Your task to perform on an android device: Search for pizza restaurants on Maps Image 0: 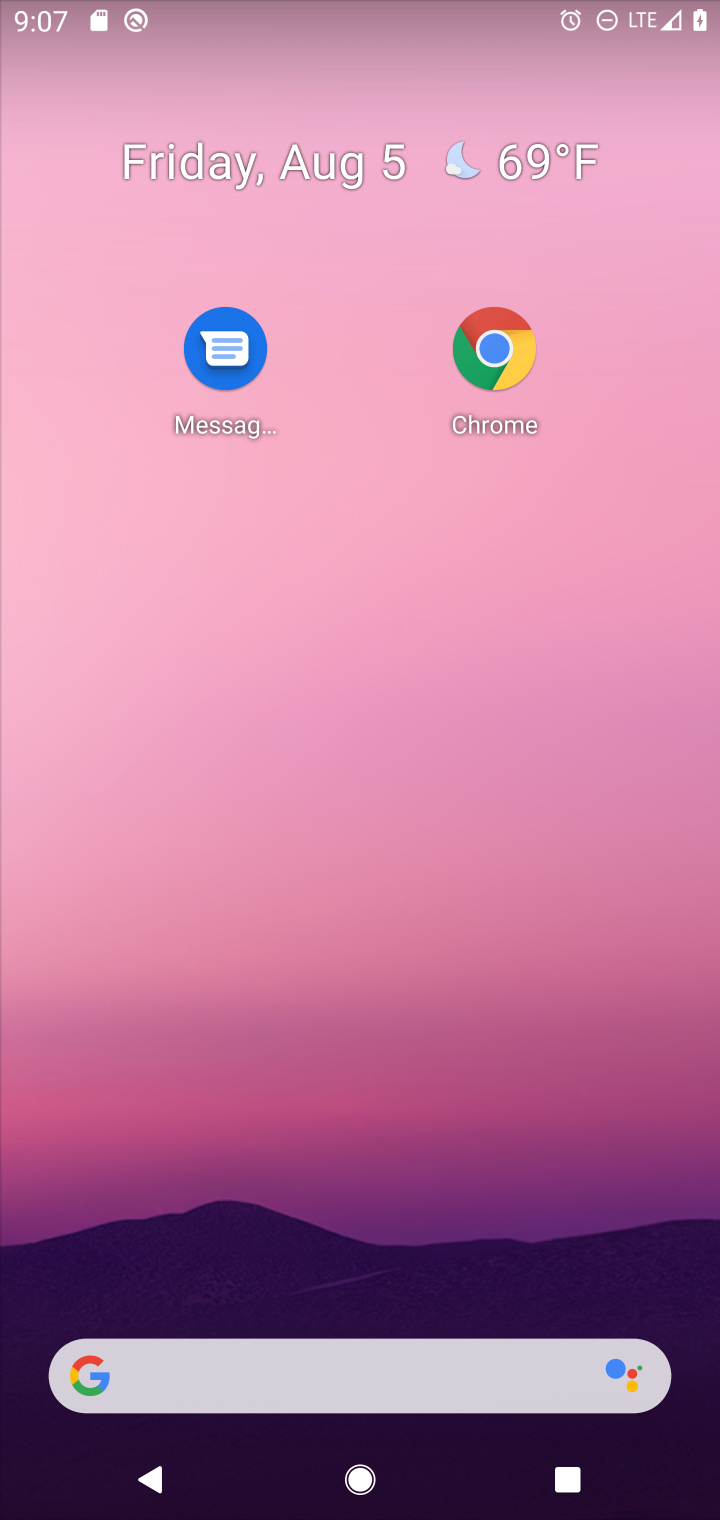
Step 0: drag from (445, 1424) to (418, 434)
Your task to perform on an android device: Search for pizza restaurants on Maps Image 1: 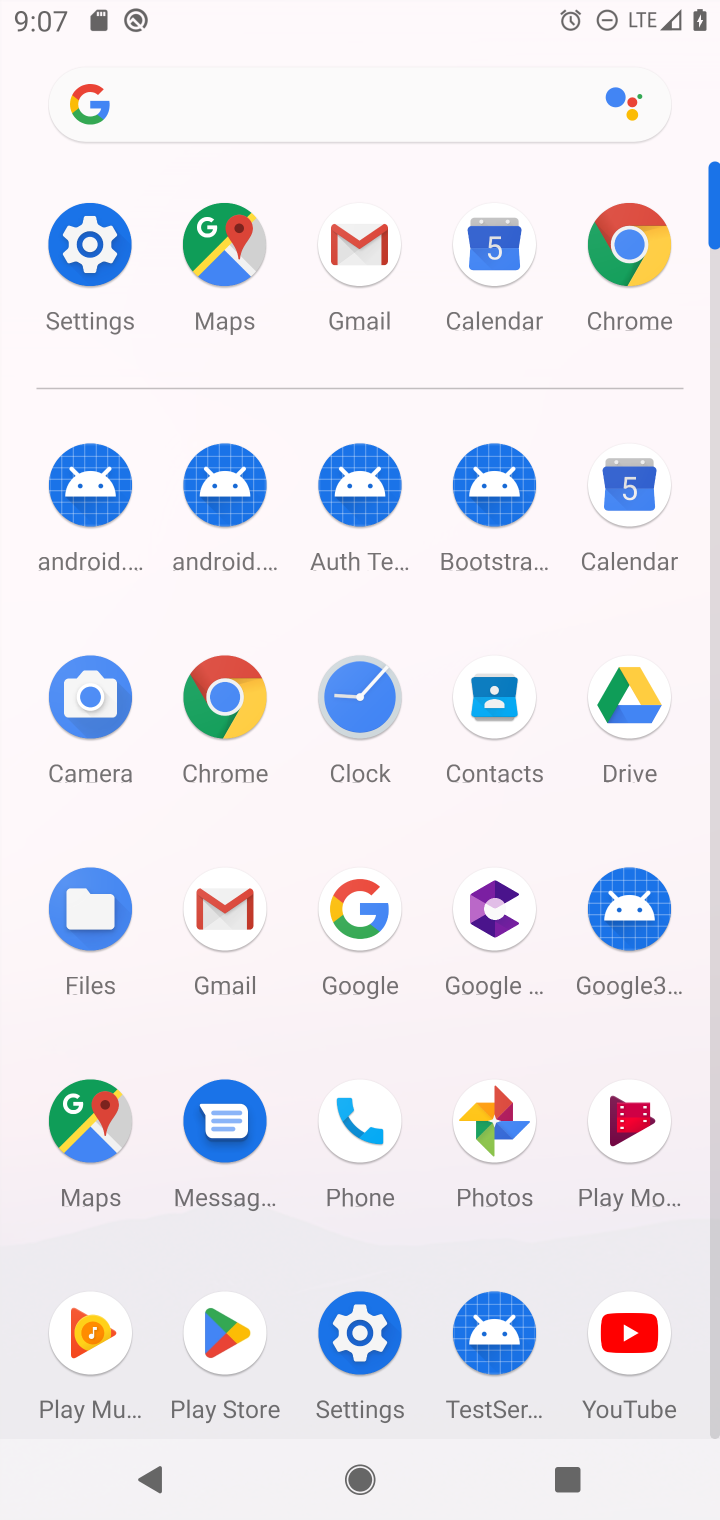
Step 1: click (235, 257)
Your task to perform on an android device: Search for pizza restaurants on Maps Image 2: 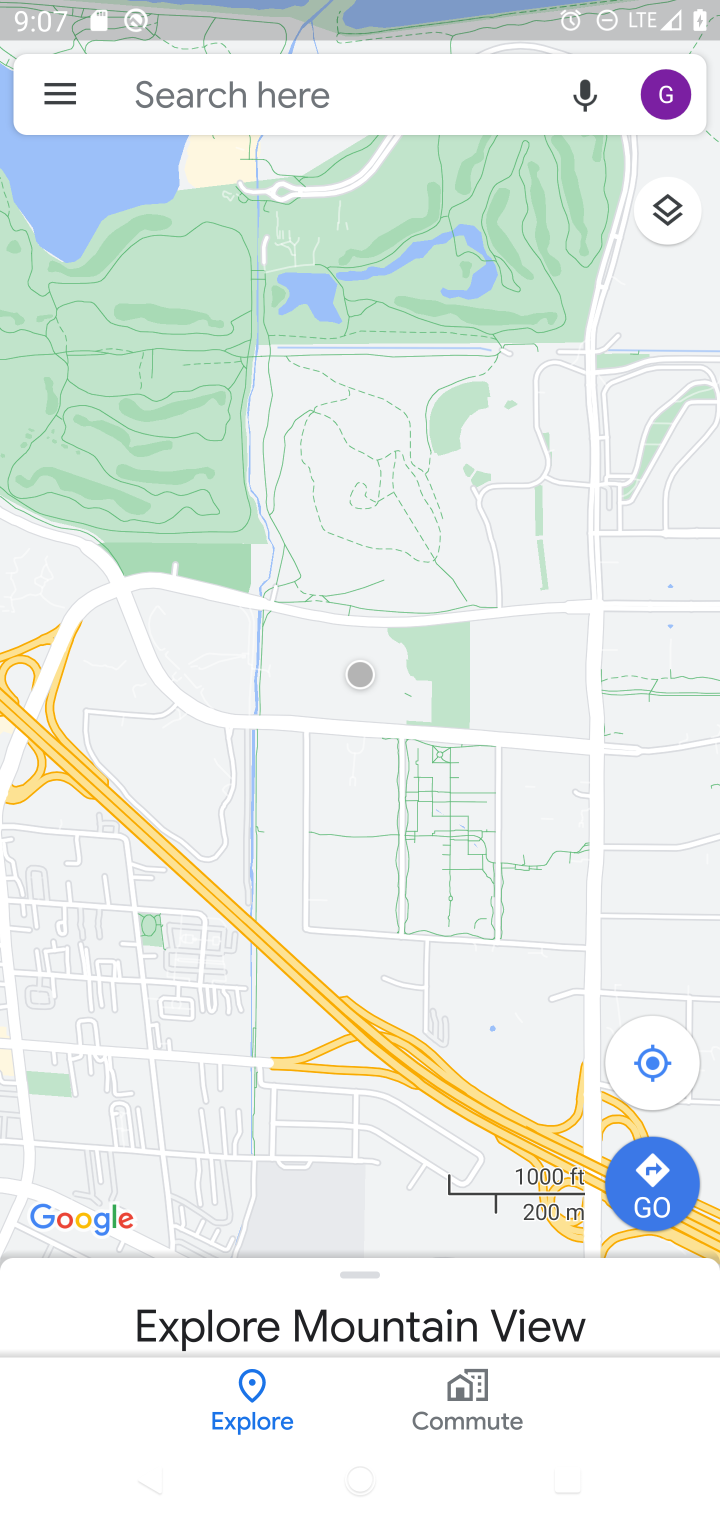
Step 2: click (273, 86)
Your task to perform on an android device: Search for pizza restaurants on Maps Image 3: 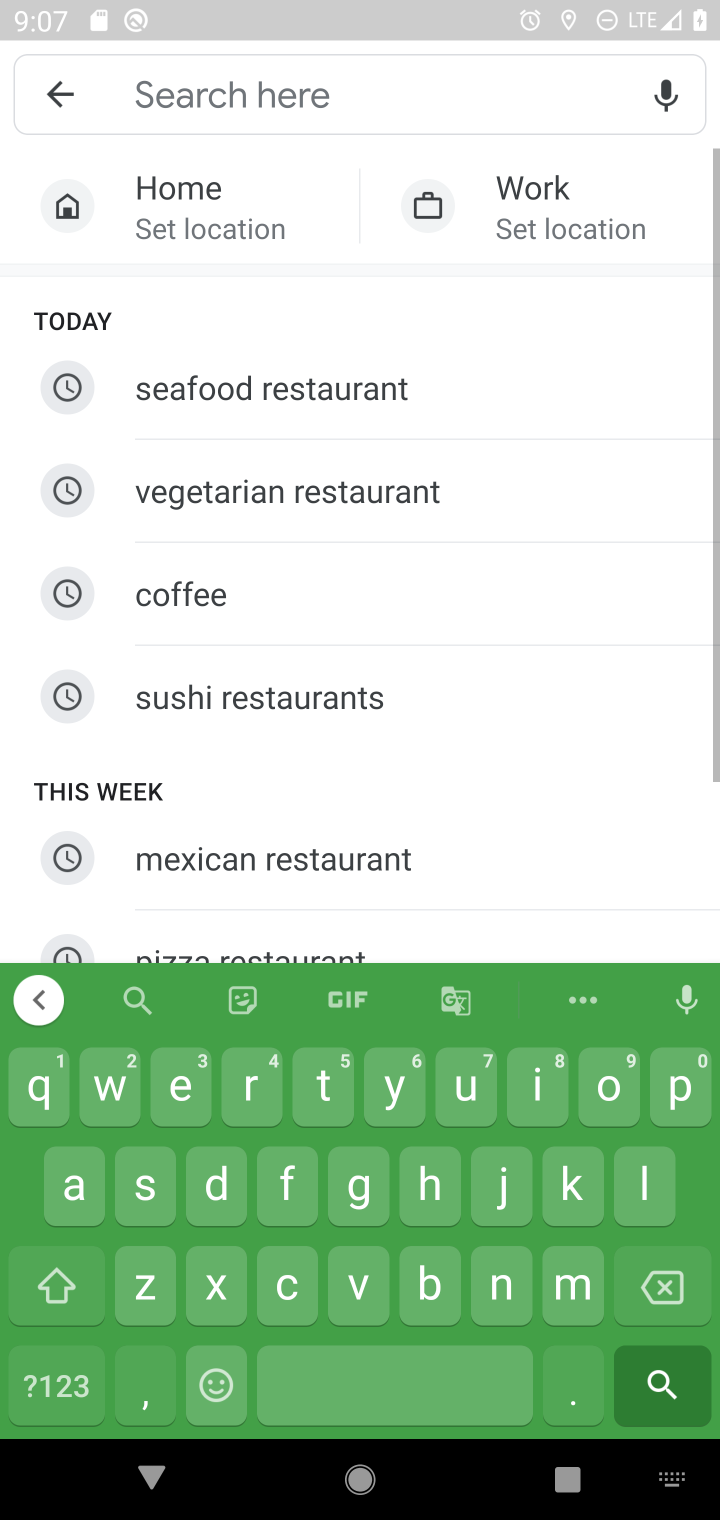
Step 3: click (232, 956)
Your task to perform on an android device: Search for pizza restaurants on Maps Image 4: 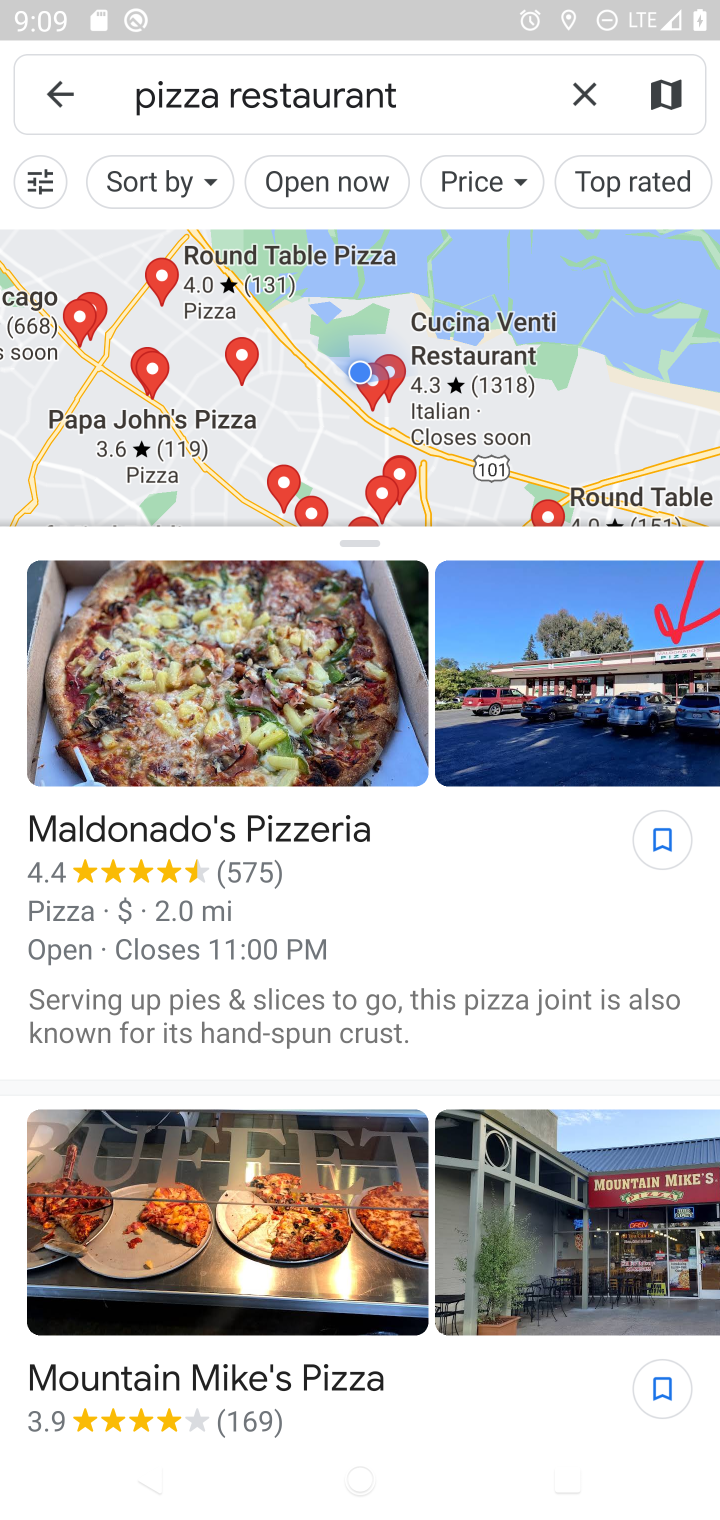
Step 4: task complete